Your task to perform on an android device: turn off location history Image 0: 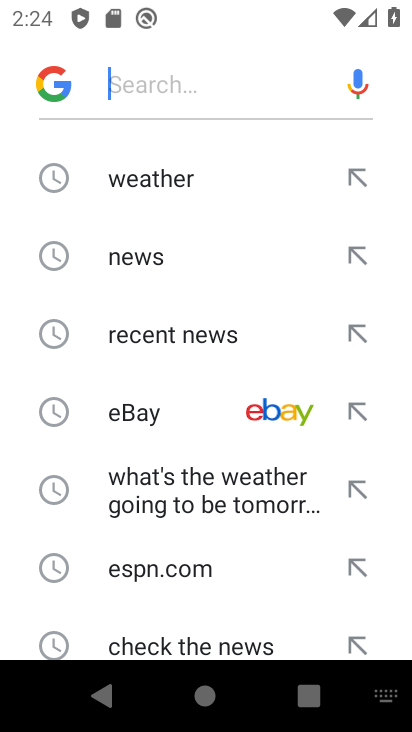
Step 0: press home button
Your task to perform on an android device: turn off location history Image 1: 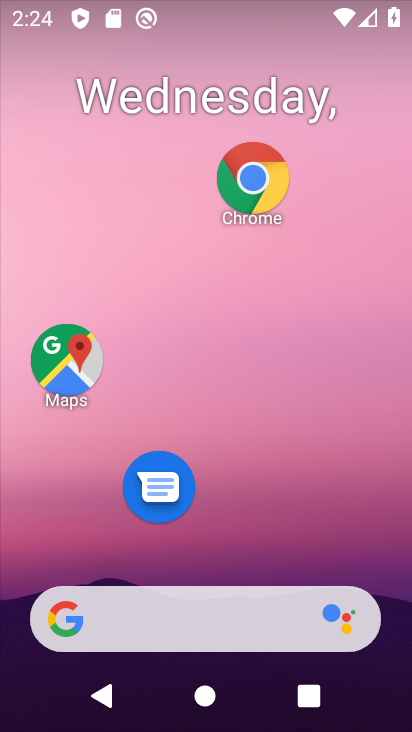
Step 1: drag from (270, 553) to (288, 142)
Your task to perform on an android device: turn off location history Image 2: 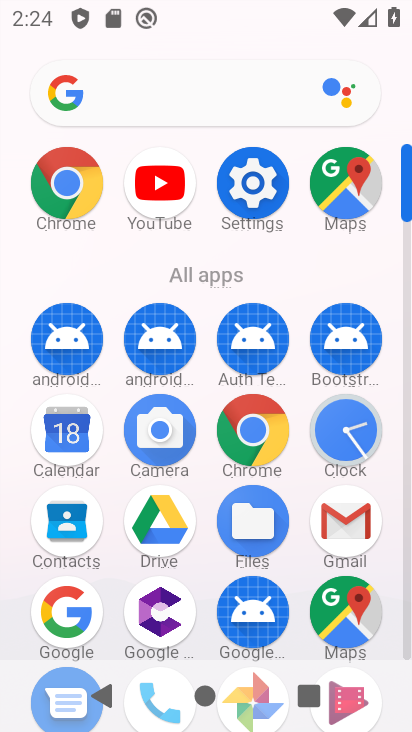
Step 2: click (255, 175)
Your task to perform on an android device: turn off location history Image 3: 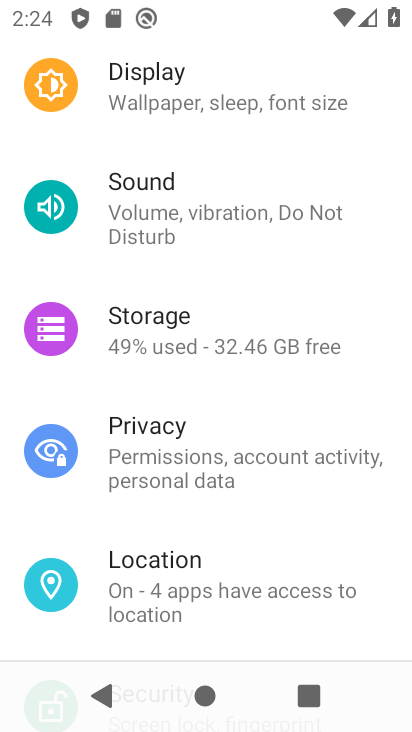
Step 3: click (174, 589)
Your task to perform on an android device: turn off location history Image 4: 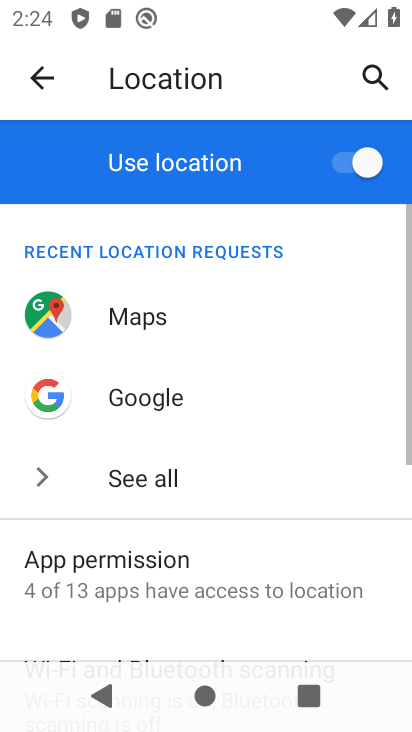
Step 4: drag from (198, 577) to (223, 115)
Your task to perform on an android device: turn off location history Image 5: 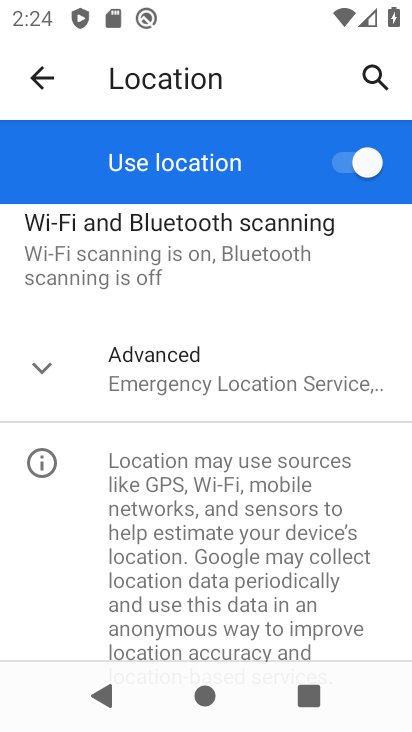
Step 5: click (205, 381)
Your task to perform on an android device: turn off location history Image 6: 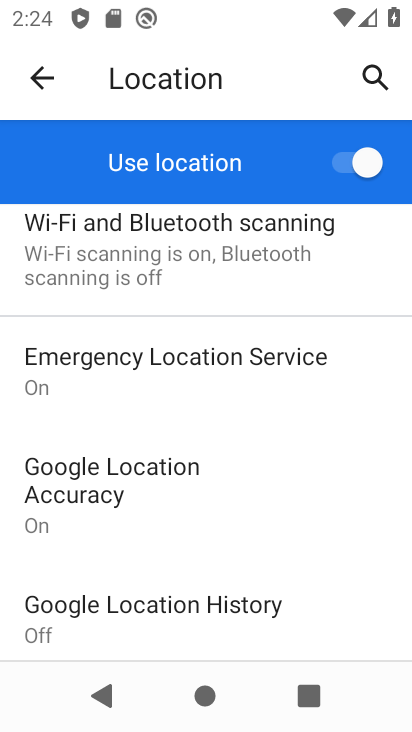
Step 6: drag from (135, 596) to (184, 329)
Your task to perform on an android device: turn off location history Image 7: 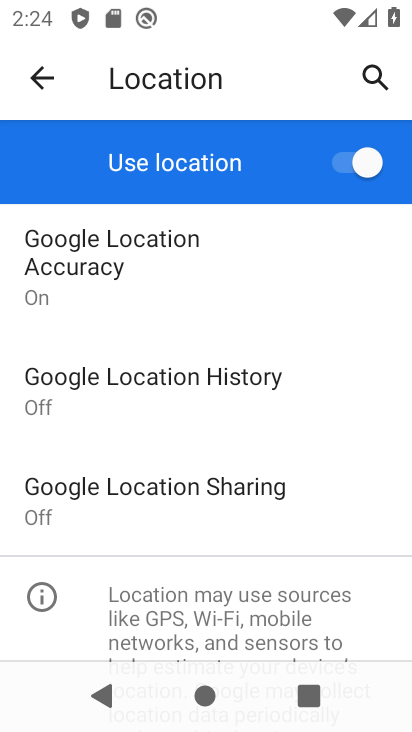
Step 7: click (159, 375)
Your task to perform on an android device: turn off location history Image 8: 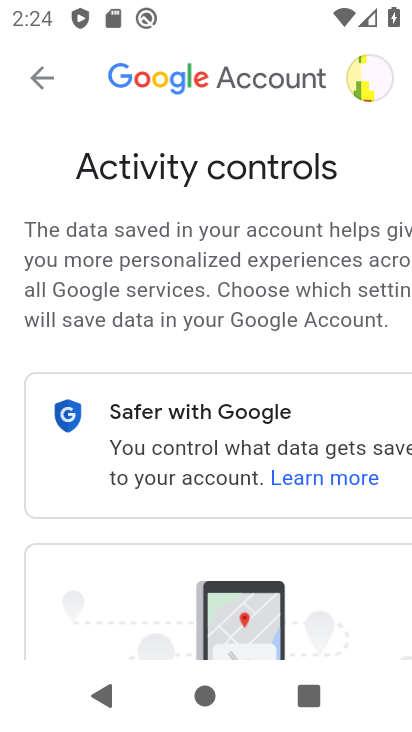
Step 8: drag from (171, 599) to (212, 169)
Your task to perform on an android device: turn off location history Image 9: 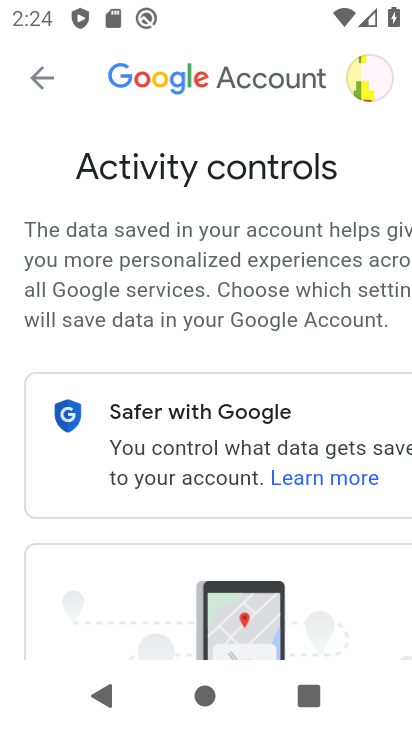
Step 9: drag from (182, 556) to (216, 164)
Your task to perform on an android device: turn off location history Image 10: 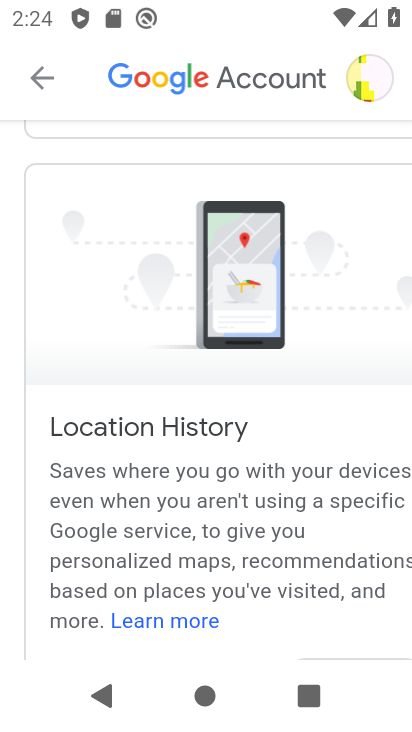
Step 10: drag from (242, 563) to (247, 197)
Your task to perform on an android device: turn off location history Image 11: 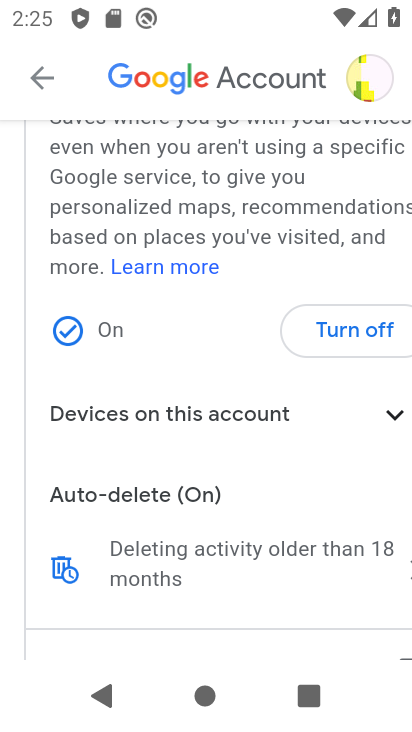
Step 11: click (369, 334)
Your task to perform on an android device: turn off location history Image 12: 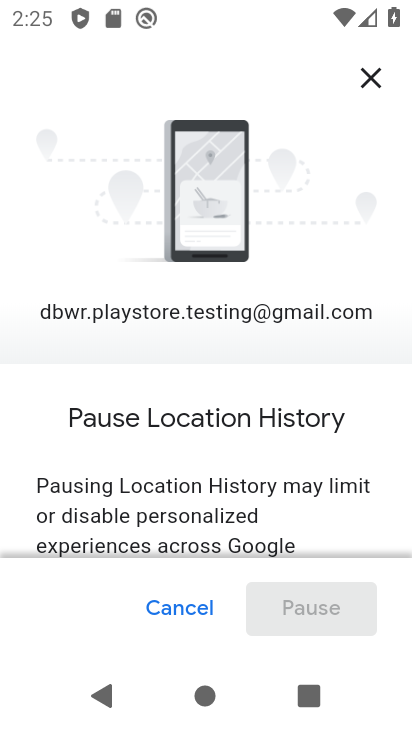
Step 12: drag from (301, 521) to (323, 90)
Your task to perform on an android device: turn off location history Image 13: 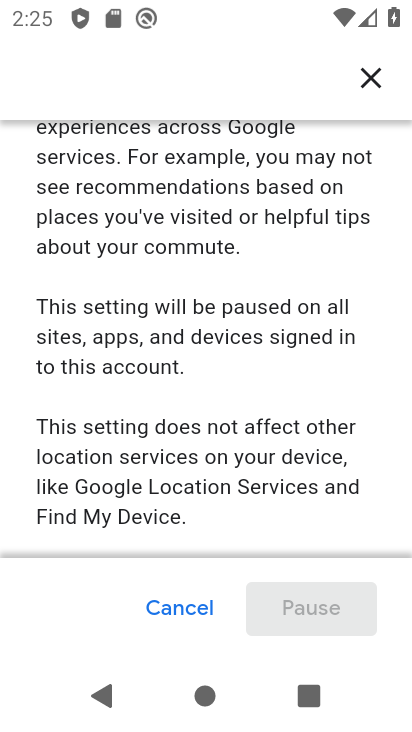
Step 13: drag from (301, 502) to (295, 115)
Your task to perform on an android device: turn off location history Image 14: 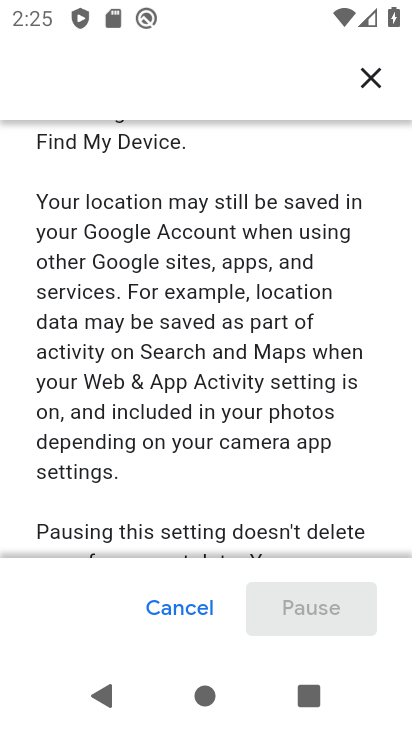
Step 14: drag from (269, 489) to (293, 65)
Your task to perform on an android device: turn off location history Image 15: 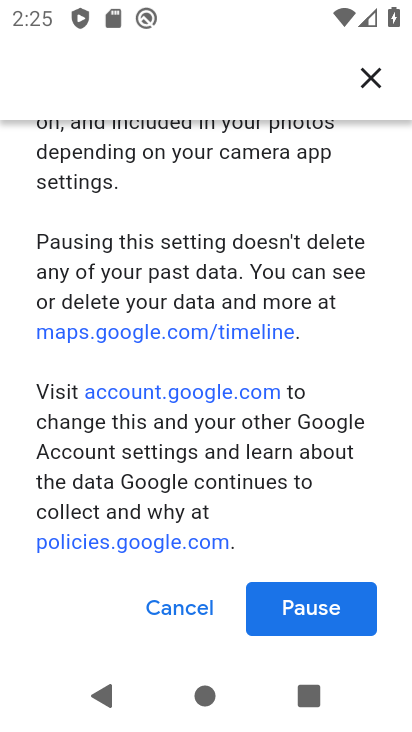
Step 15: click (308, 598)
Your task to perform on an android device: turn off location history Image 16: 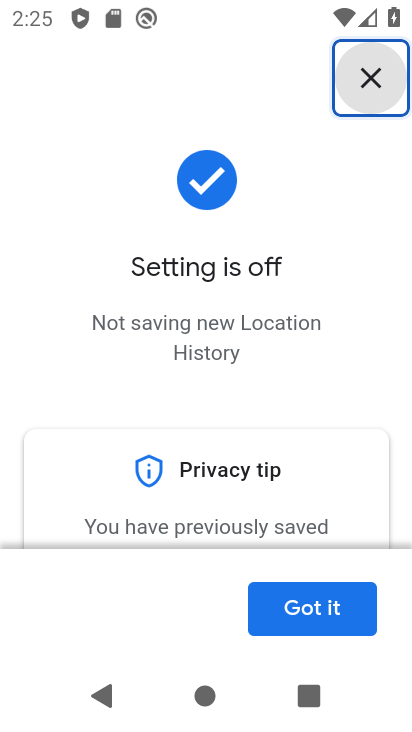
Step 16: task complete